Your task to perform on an android device: open app "Walmart Shopping & Grocery" (install if not already installed), go to login, and select forgot password Image 0: 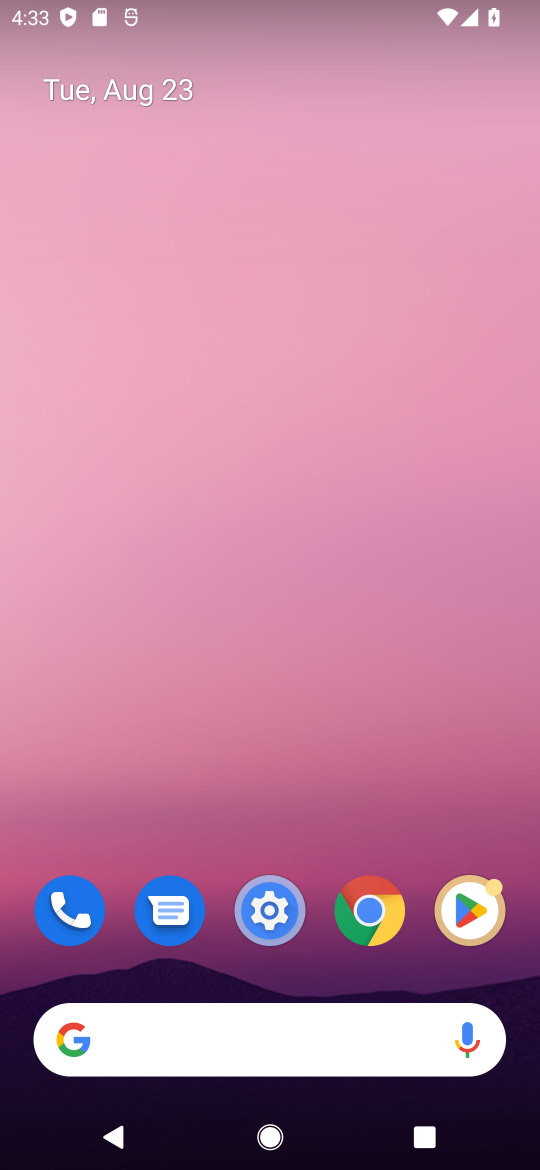
Step 0: drag from (240, 645) to (217, 308)
Your task to perform on an android device: open app "Walmart Shopping & Grocery" (install if not already installed), go to login, and select forgot password Image 1: 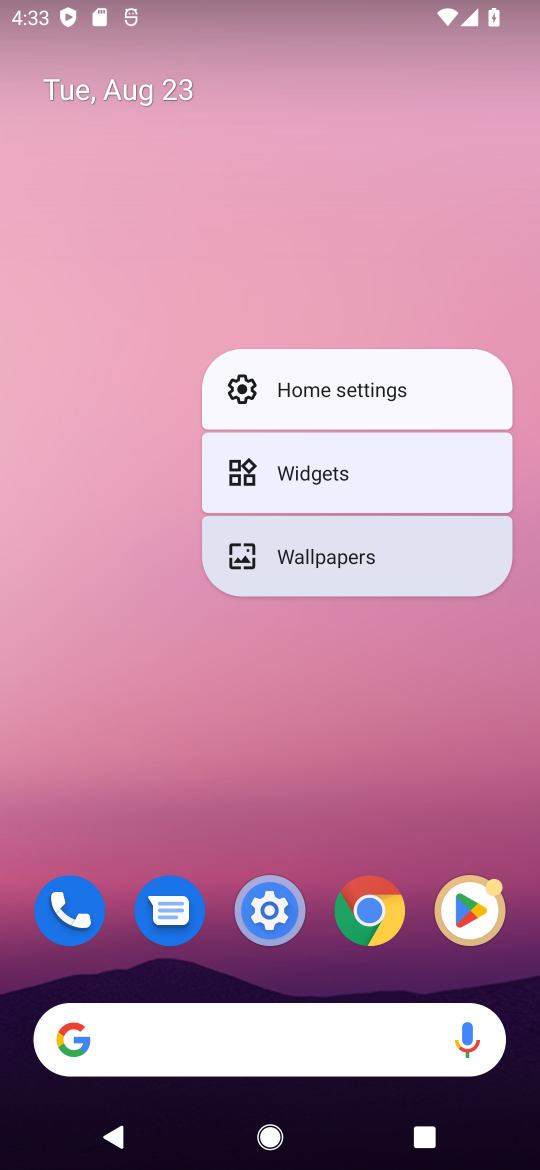
Step 1: click (92, 768)
Your task to perform on an android device: open app "Walmart Shopping & Grocery" (install if not already installed), go to login, and select forgot password Image 2: 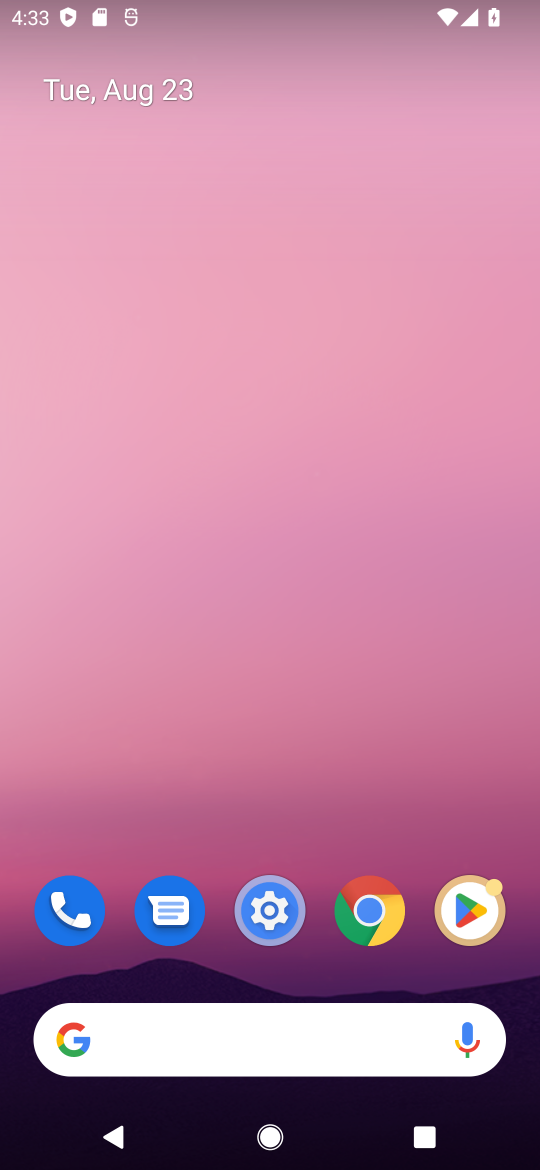
Step 2: drag from (175, 930) to (142, 196)
Your task to perform on an android device: open app "Walmart Shopping & Grocery" (install if not already installed), go to login, and select forgot password Image 3: 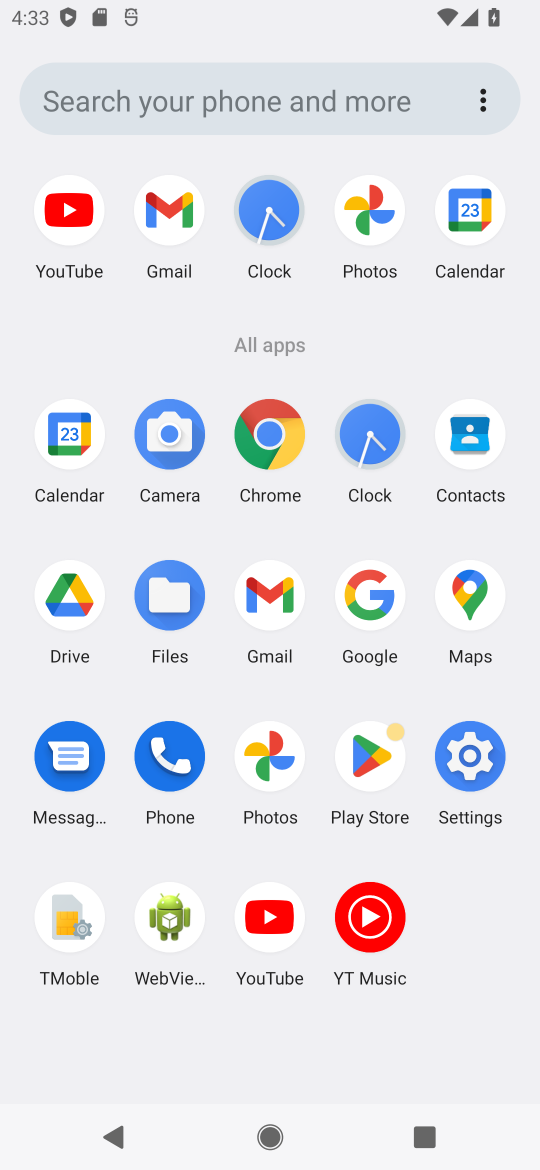
Step 3: click (382, 750)
Your task to perform on an android device: open app "Walmart Shopping & Grocery" (install if not already installed), go to login, and select forgot password Image 4: 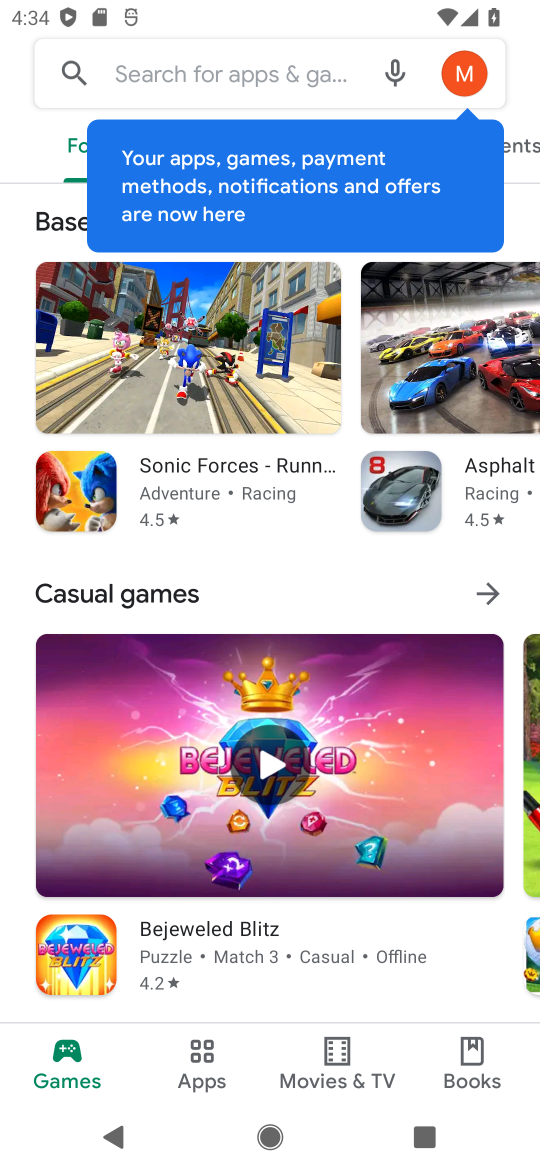
Step 4: click (248, 75)
Your task to perform on an android device: open app "Walmart Shopping & Grocery" (install if not already installed), go to login, and select forgot password Image 5: 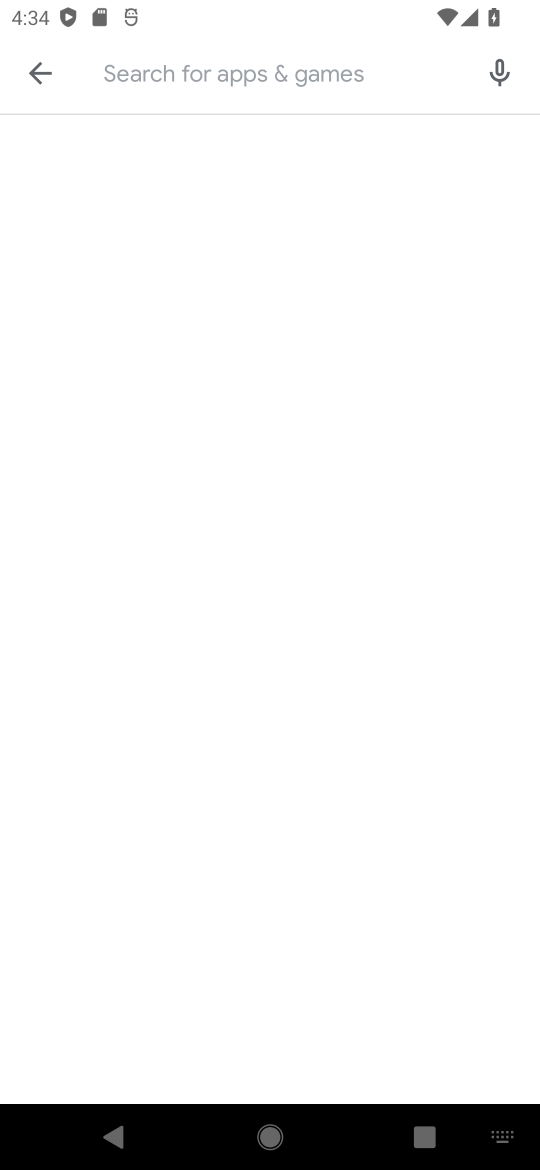
Step 5: type "Walmart Shopping & Grocery"
Your task to perform on an android device: open app "Walmart Shopping & Grocery" (install if not already installed), go to login, and select forgot password Image 6: 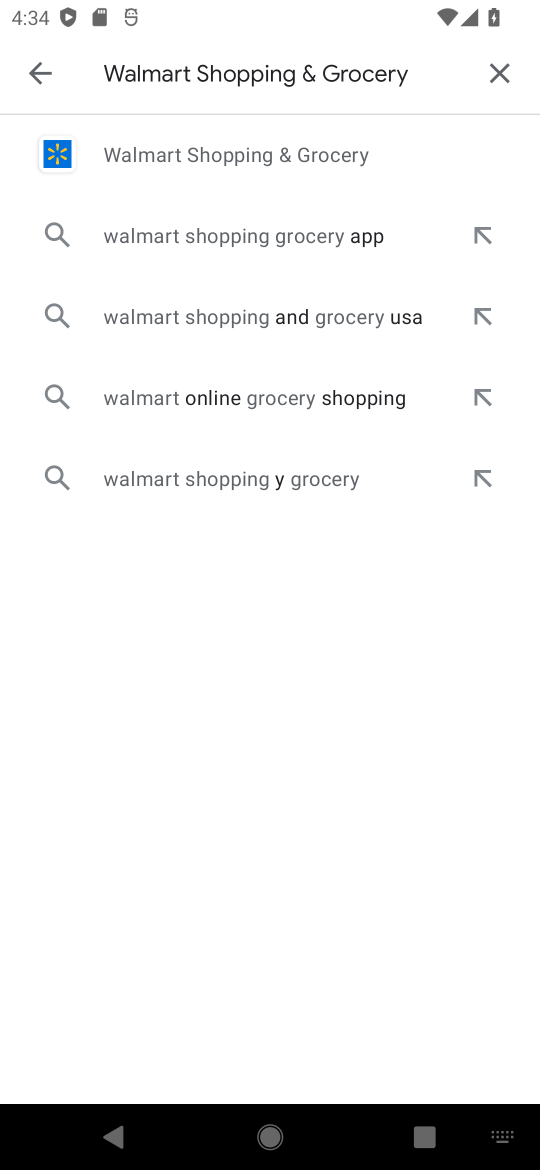
Step 6: click (294, 159)
Your task to perform on an android device: open app "Walmart Shopping & Grocery" (install if not already installed), go to login, and select forgot password Image 7: 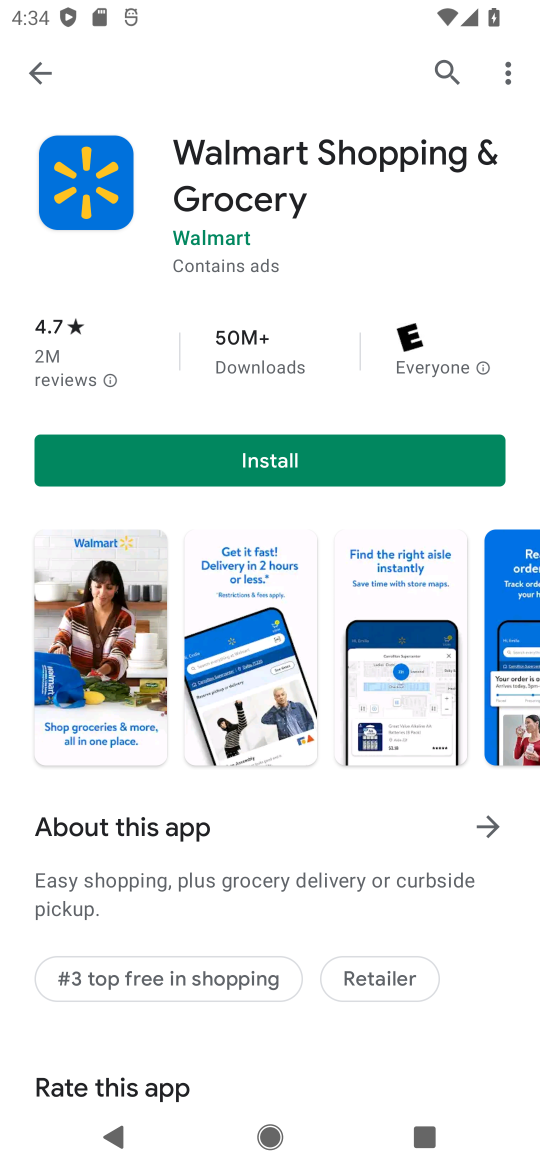
Step 7: click (245, 471)
Your task to perform on an android device: open app "Walmart Shopping & Grocery" (install if not already installed), go to login, and select forgot password Image 8: 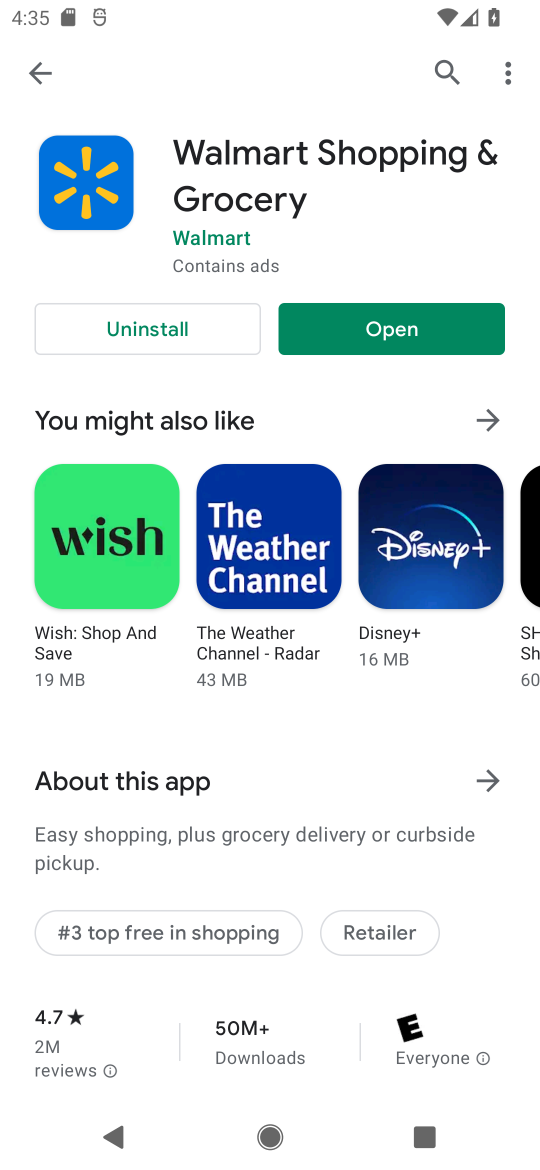
Step 8: click (317, 330)
Your task to perform on an android device: open app "Walmart Shopping & Grocery" (install if not already installed), go to login, and select forgot password Image 9: 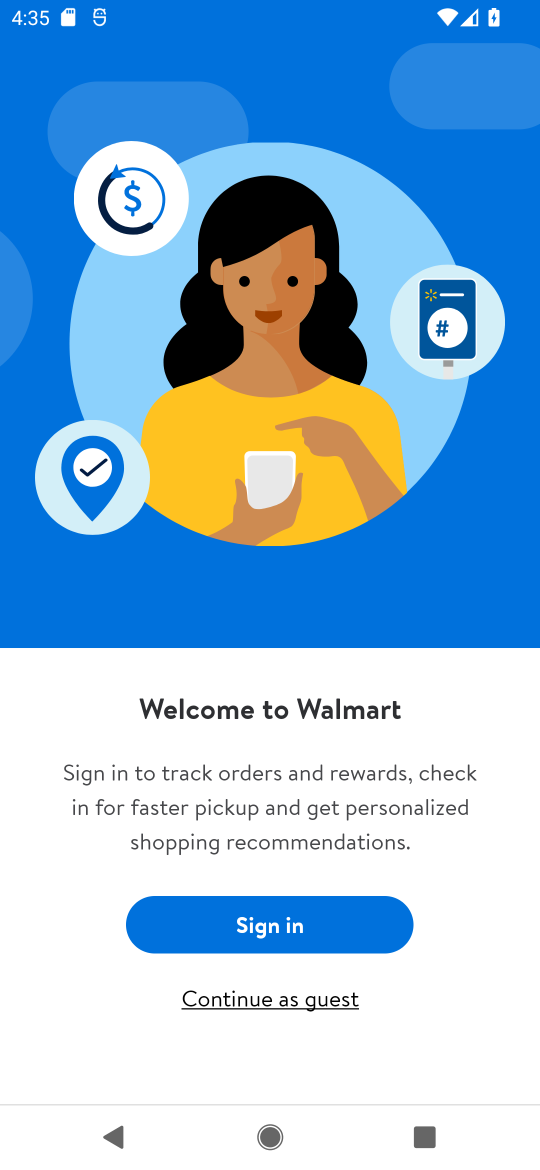
Step 9: task complete